Your task to perform on an android device: toggle notifications settings in the gmail app Image 0: 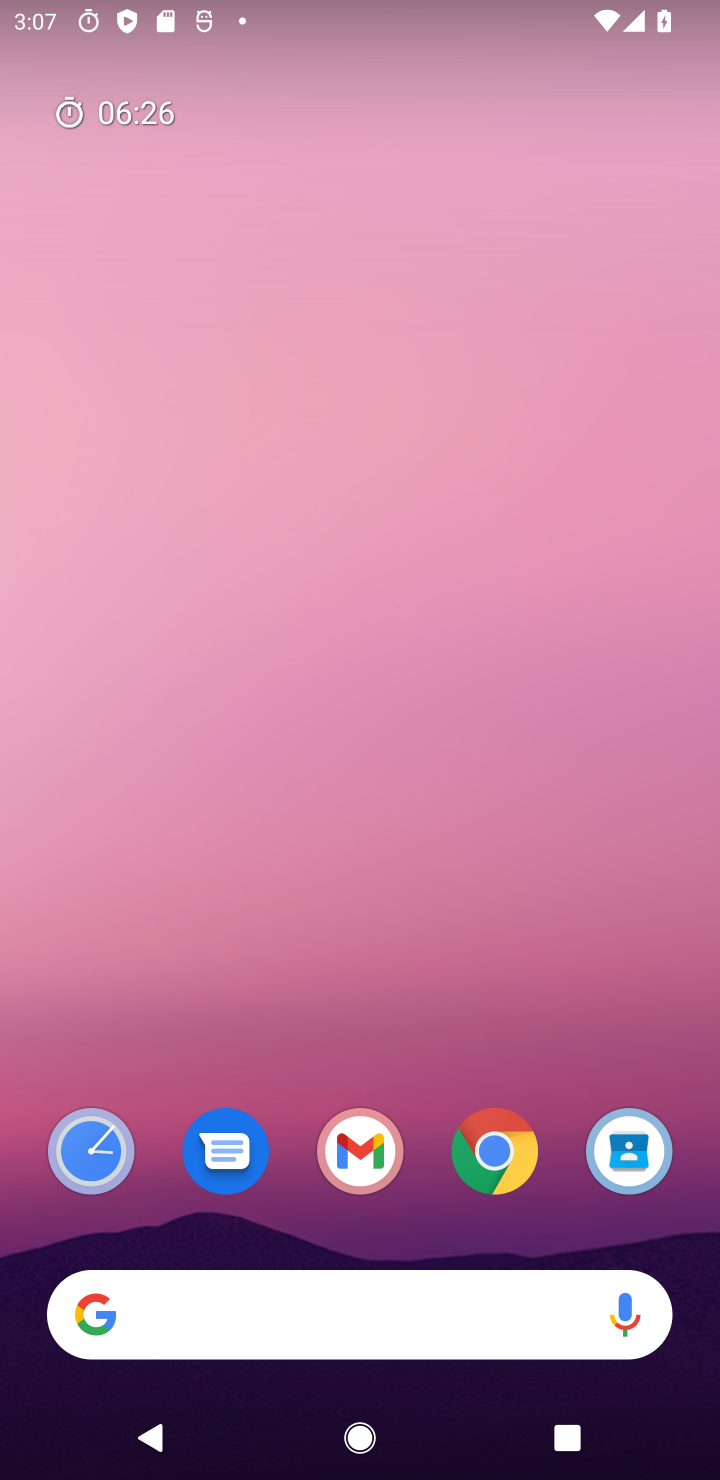
Step 0: press home button
Your task to perform on an android device: toggle notifications settings in the gmail app Image 1: 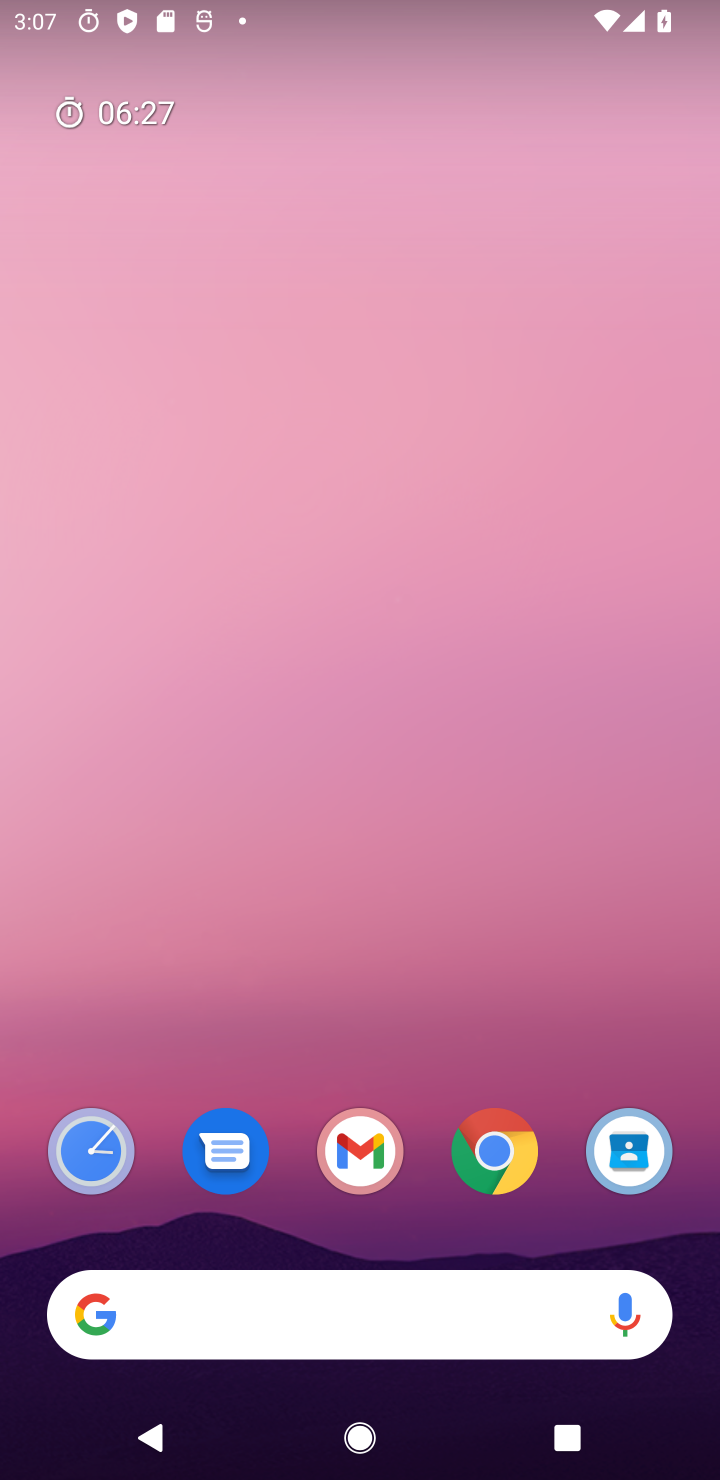
Step 1: press home button
Your task to perform on an android device: toggle notifications settings in the gmail app Image 2: 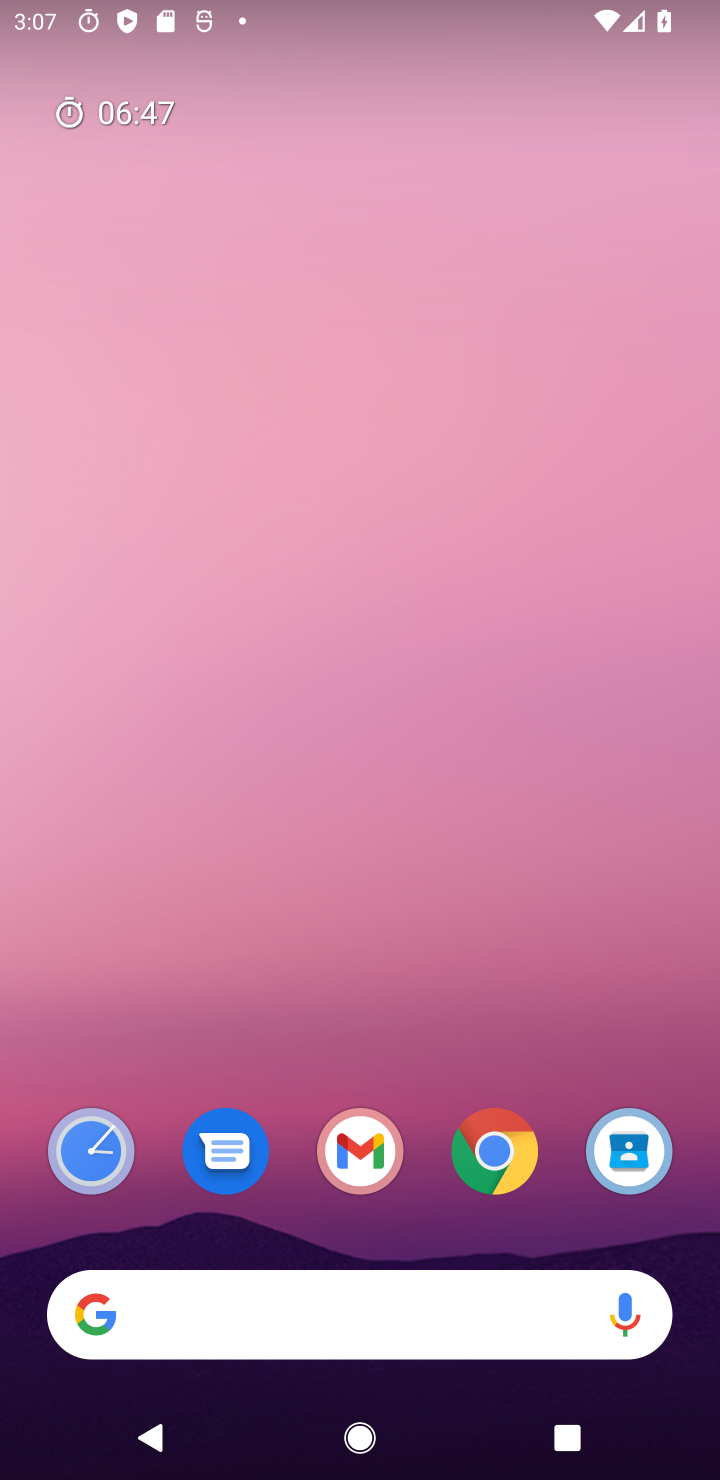
Step 2: press home button
Your task to perform on an android device: toggle notifications settings in the gmail app Image 3: 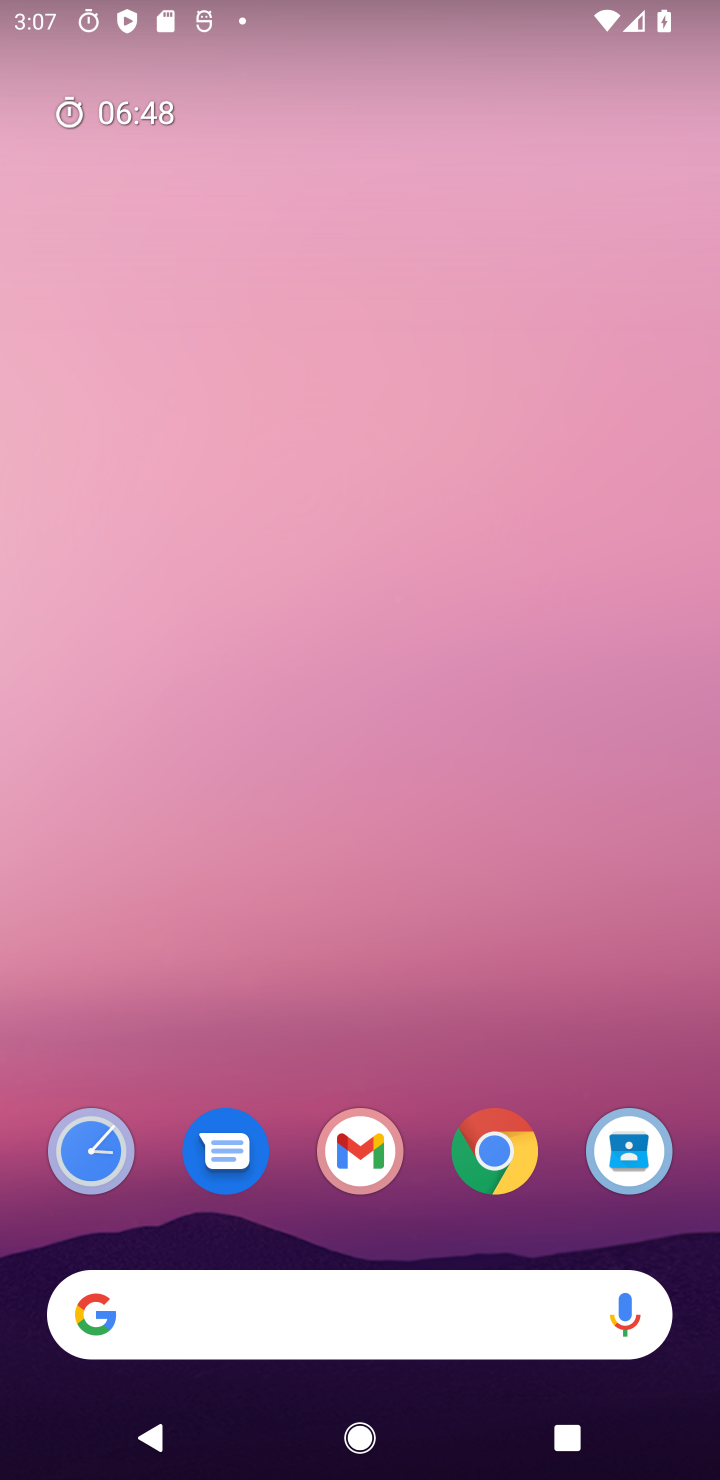
Step 3: press home button
Your task to perform on an android device: toggle notifications settings in the gmail app Image 4: 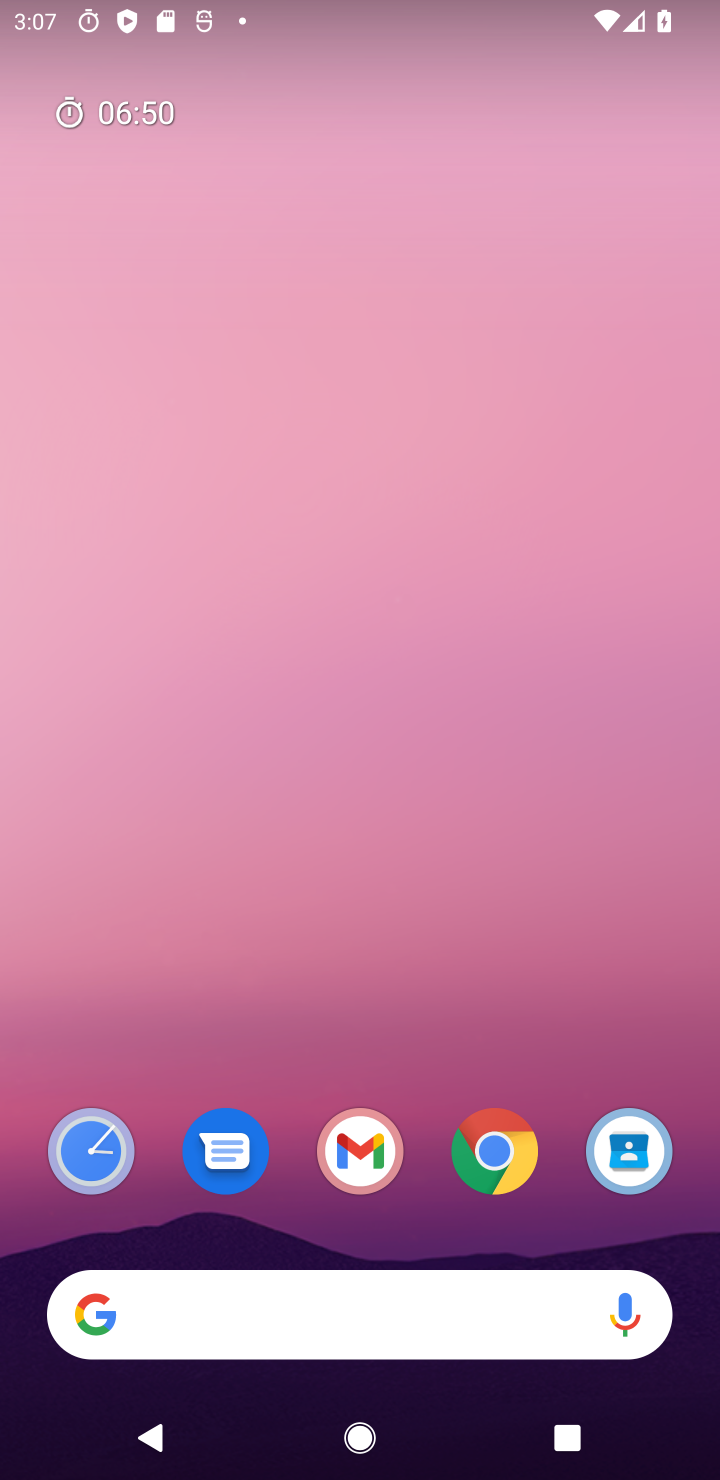
Step 4: click (366, 1177)
Your task to perform on an android device: toggle notifications settings in the gmail app Image 5: 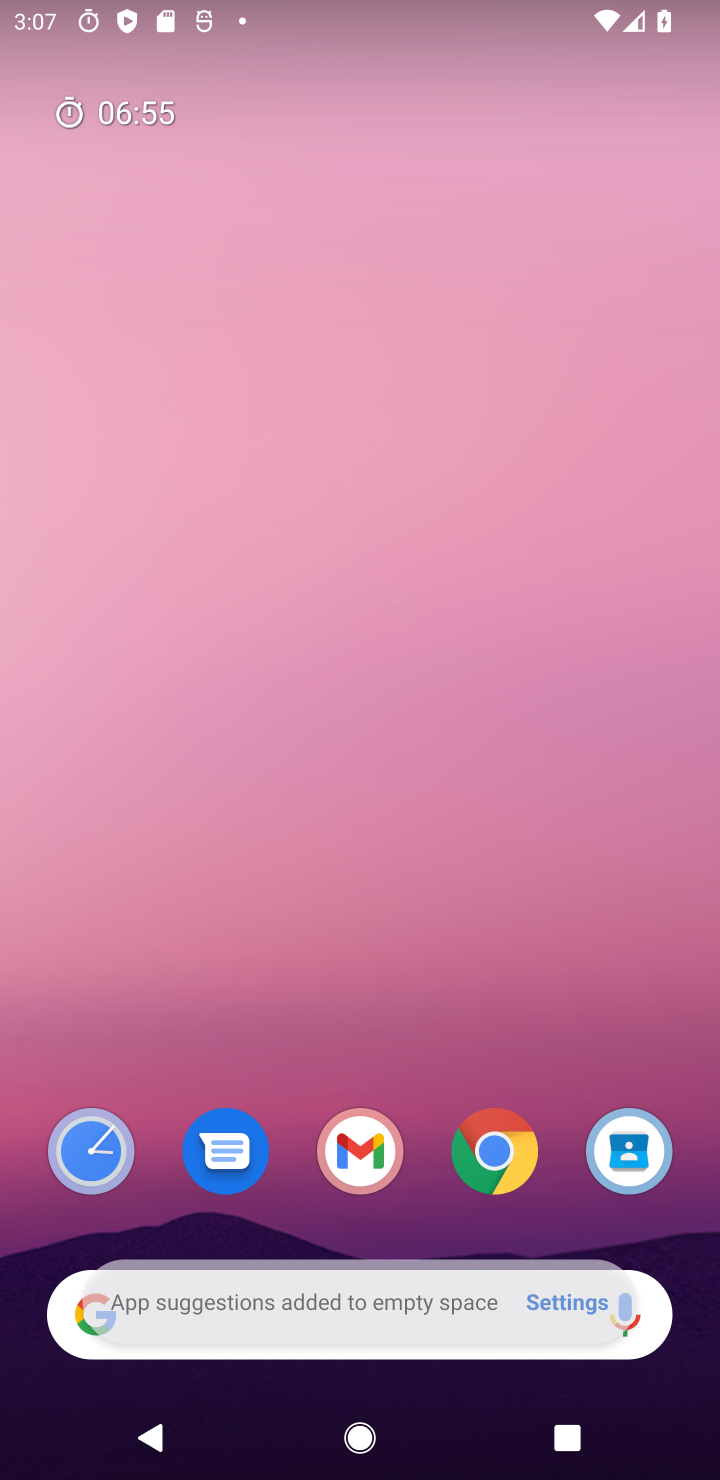
Step 5: drag from (588, 940) to (685, 84)
Your task to perform on an android device: toggle notifications settings in the gmail app Image 6: 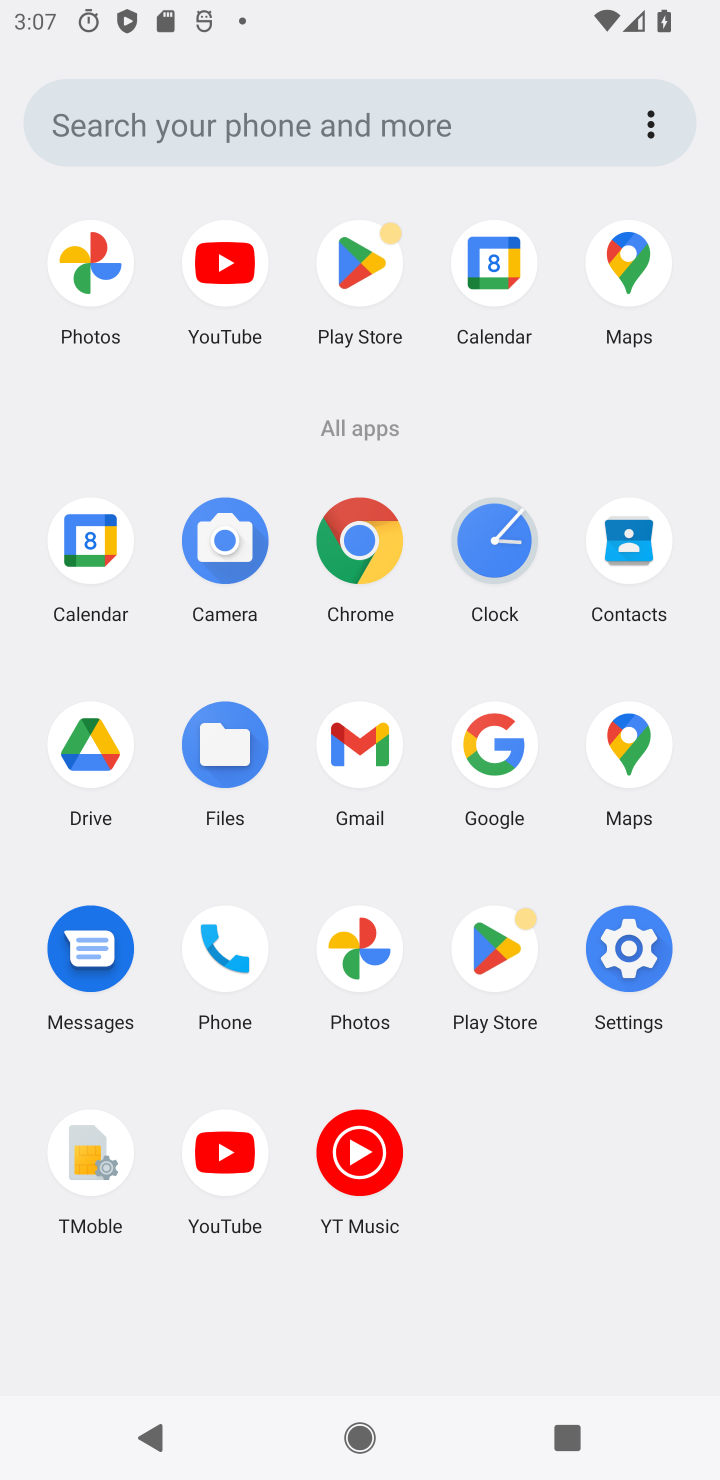
Step 6: click (352, 771)
Your task to perform on an android device: toggle notifications settings in the gmail app Image 7: 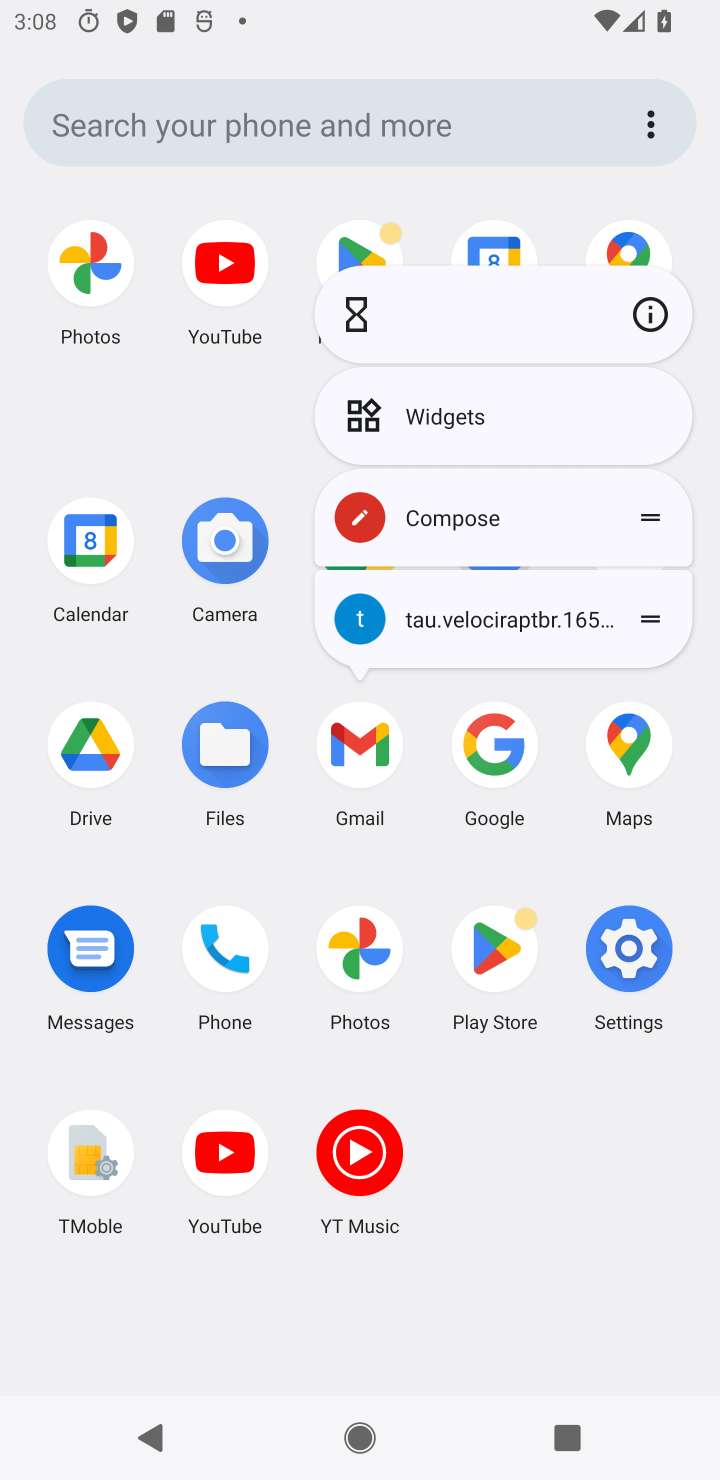
Step 7: click (649, 313)
Your task to perform on an android device: toggle notifications settings in the gmail app Image 8: 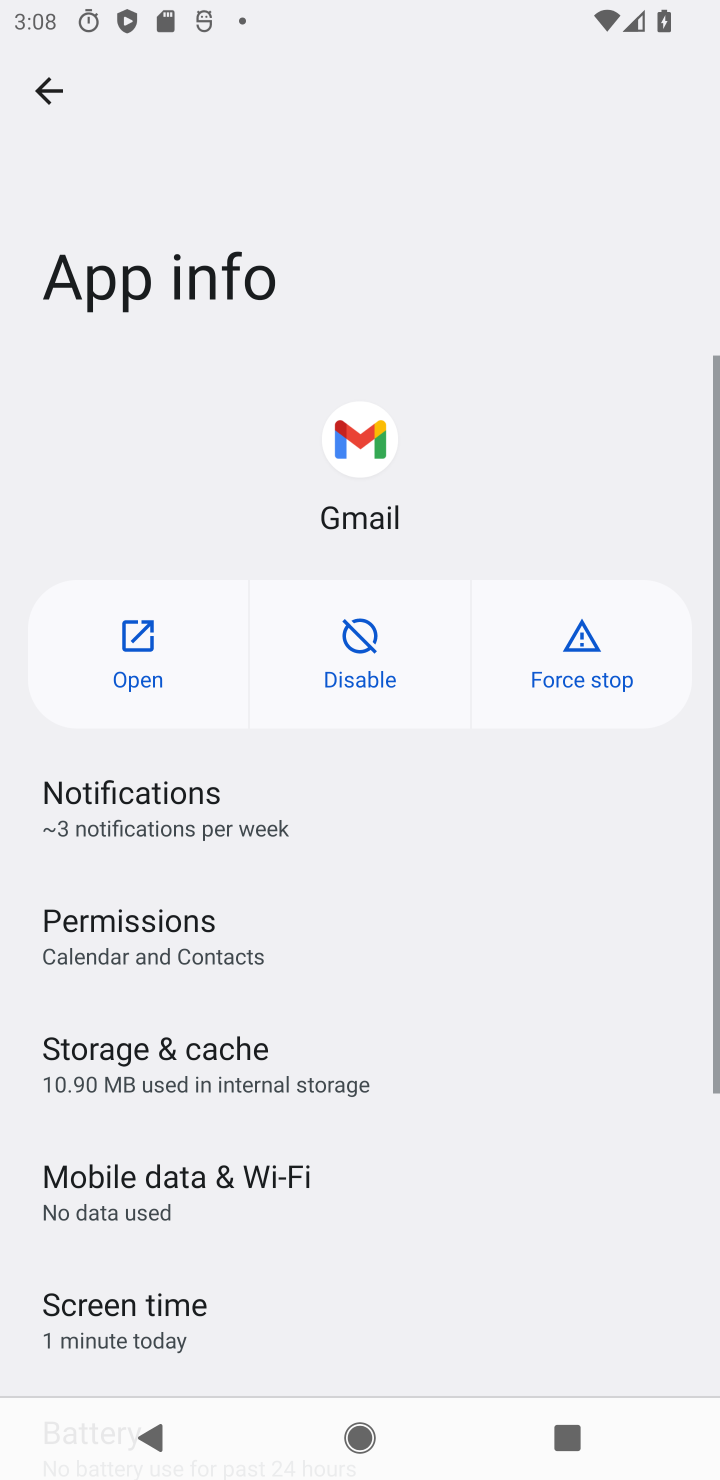
Step 8: click (138, 797)
Your task to perform on an android device: toggle notifications settings in the gmail app Image 9: 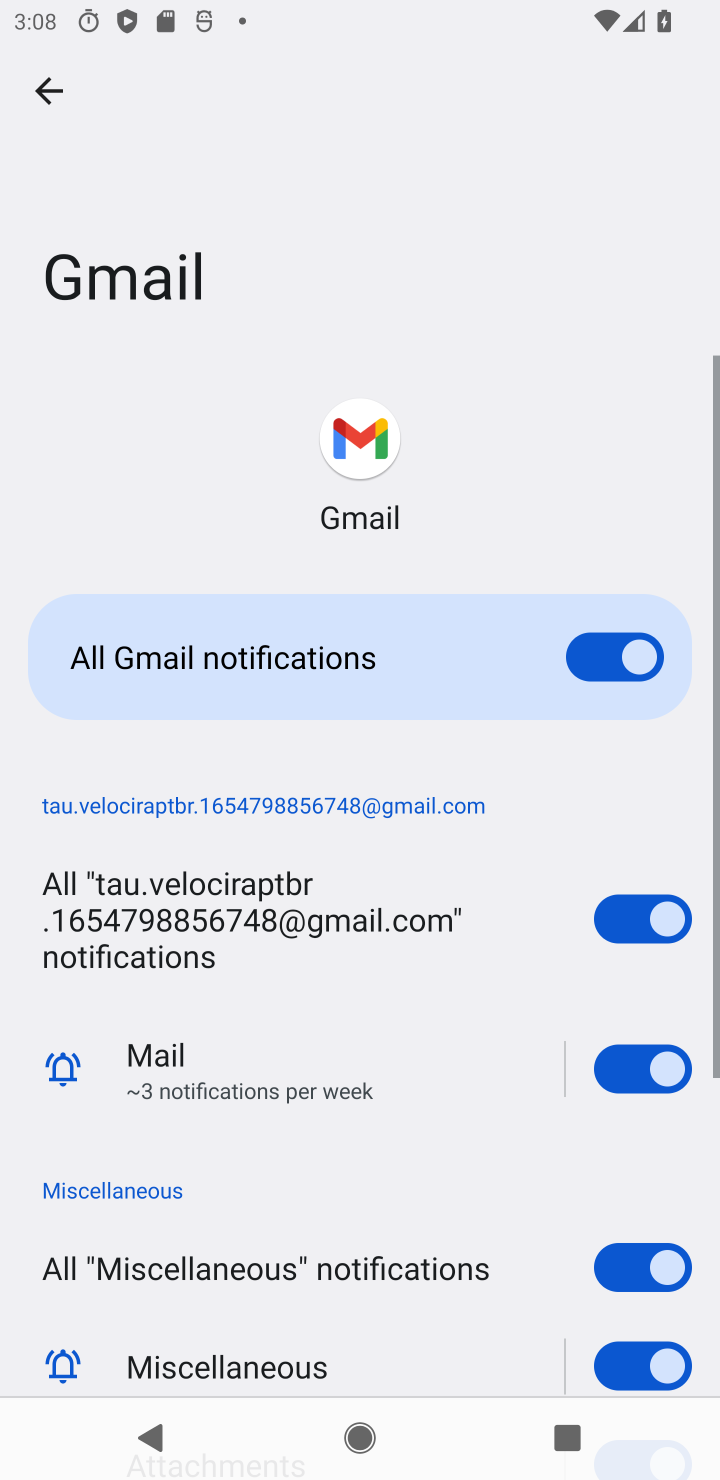
Step 9: click (459, 642)
Your task to perform on an android device: toggle notifications settings in the gmail app Image 10: 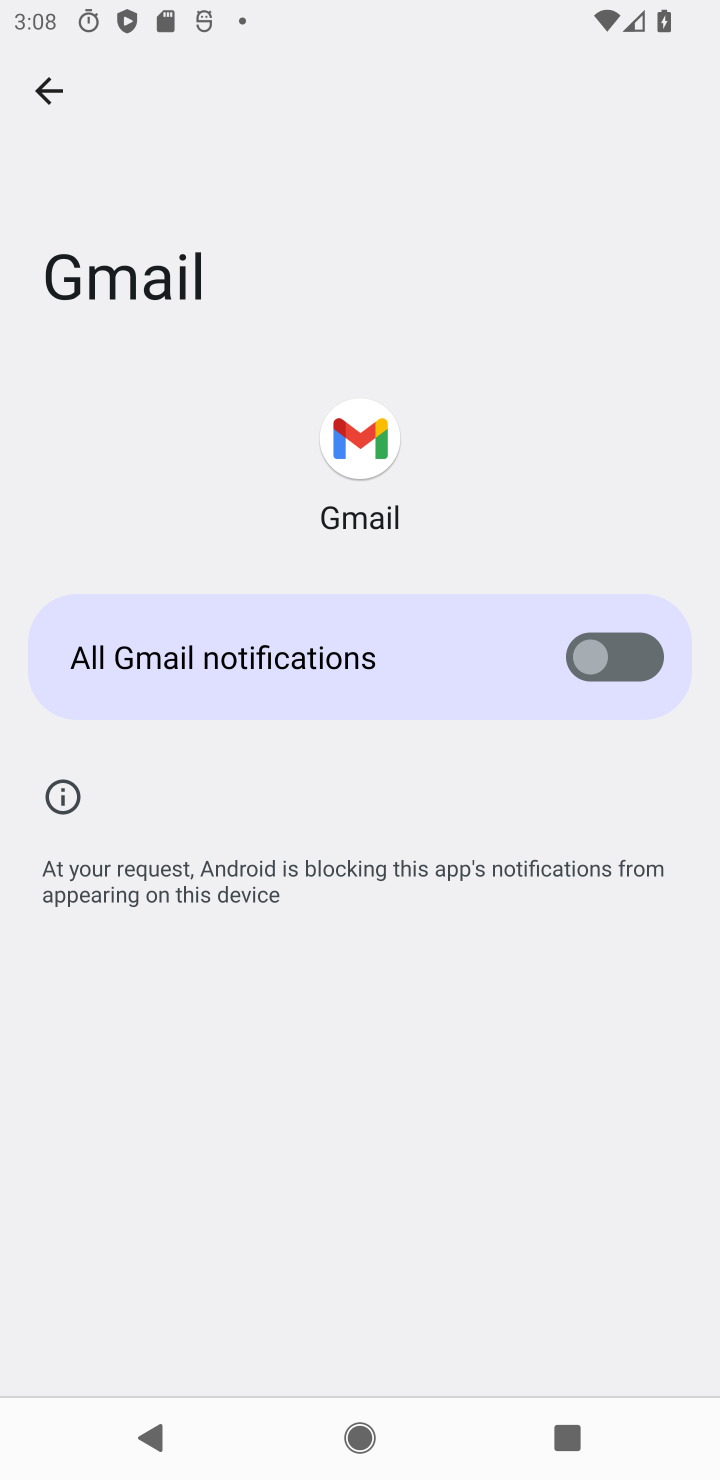
Step 10: task complete